Your task to perform on an android device: turn on javascript in the chrome app Image 0: 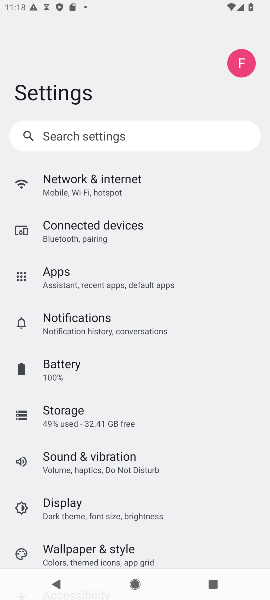
Step 0: press back button
Your task to perform on an android device: turn on javascript in the chrome app Image 1: 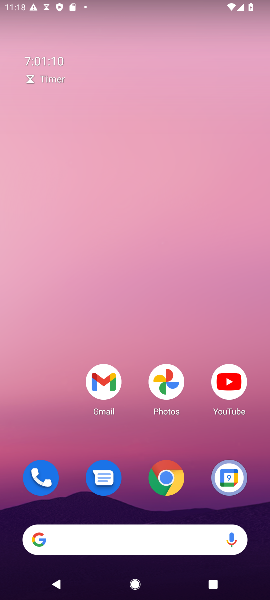
Step 1: press home button
Your task to perform on an android device: turn on javascript in the chrome app Image 2: 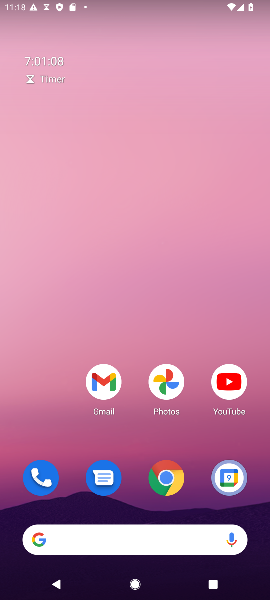
Step 2: click (160, 474)
Your task to perform on an android device: turn on javascript in the chrome app Image 3: 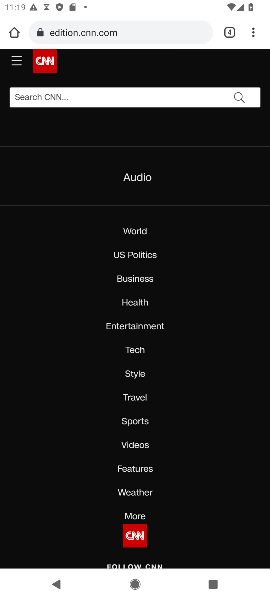
Step 3: click (253, 29)
Your task to perform on an android device: turn on javascript in the chrome app Image 4: 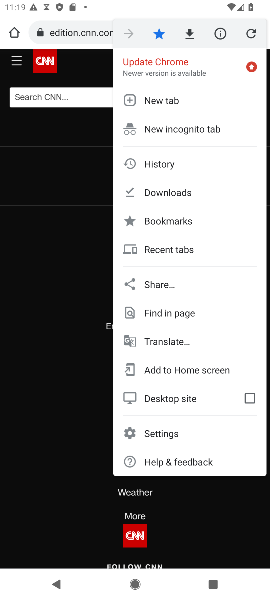
Step 4: click (142, 432)
Your task to perform on an android device: turn on javascript in the chrome app Image 5: 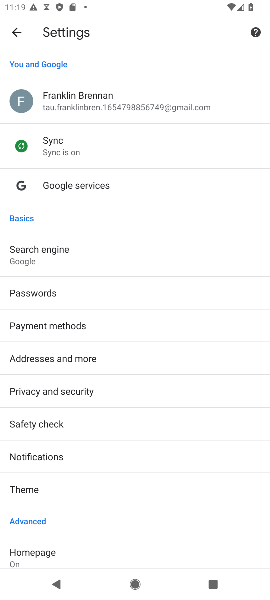
Step 5: drag from (75, 526) to (53, 187)
Your task to perform on an android device: turn on javascript in the chrome app Image 6: 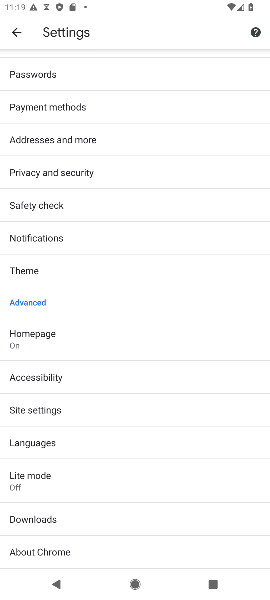
Step 6: click (65, 417)
Your task to perform on an android device: turn on javascript in the chrome app Image 7: 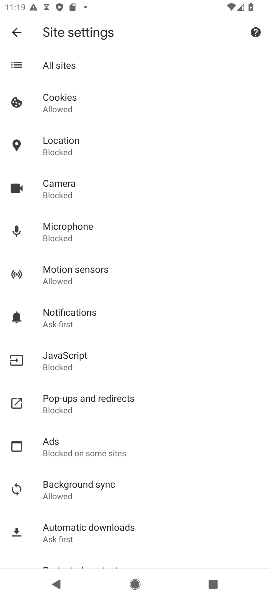
Step 7: click (92, 365)
Your task to perform on an android device: turn on javascript in the chrome app Image 8: 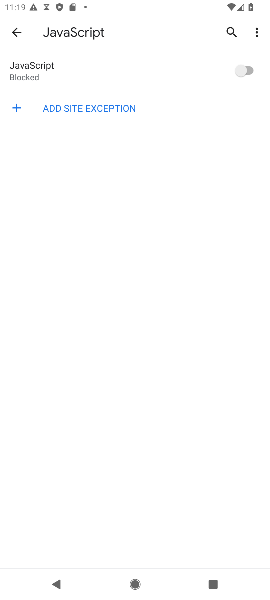
Step 8: click (228, 85)
Your task to perform on an android device: turn on javascript in the chrome app Image 9: 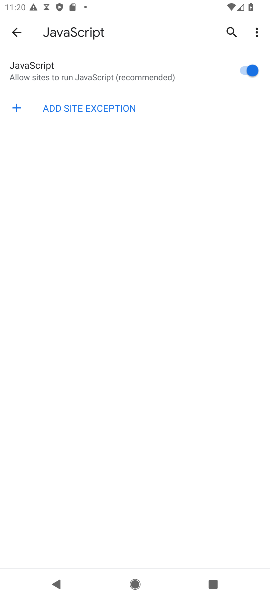
Step 9: task complete